Your task to perform on an android device: Toggle the flashlight Image 0: 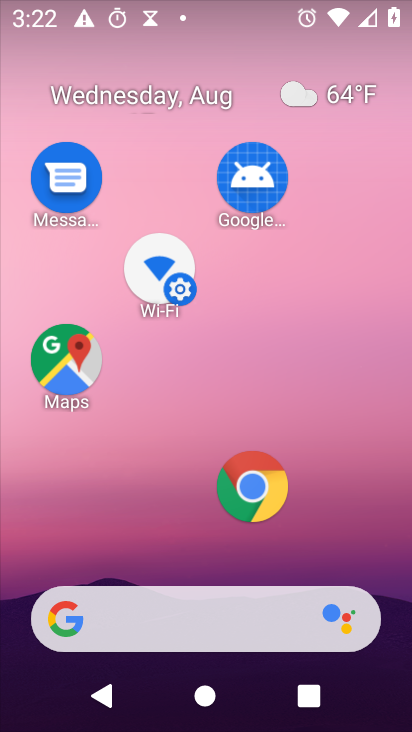
Step 0: press home button
Your task to perform on an android device: Toggle the flashlight Image 1: 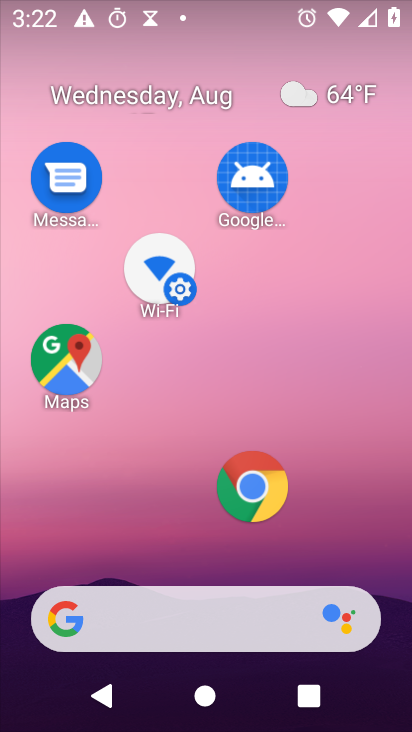
Step 1: task complete